Your task to perform on an android device: Go to sound settings Image 0: 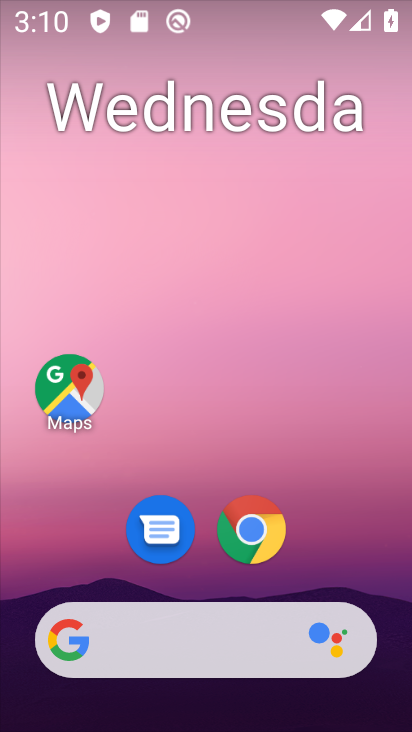
Step 0: drag from (90, 621) to (190, 127)
Your task to perform on an android device: Go to sound settings Image 1: 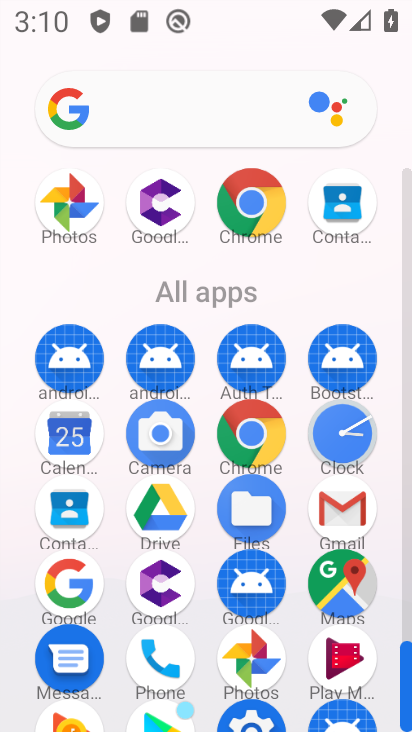
Step 1: drag from (132, 644) to (182, 371)
Your task to perform on an android device: Go to sound settings Image 2: 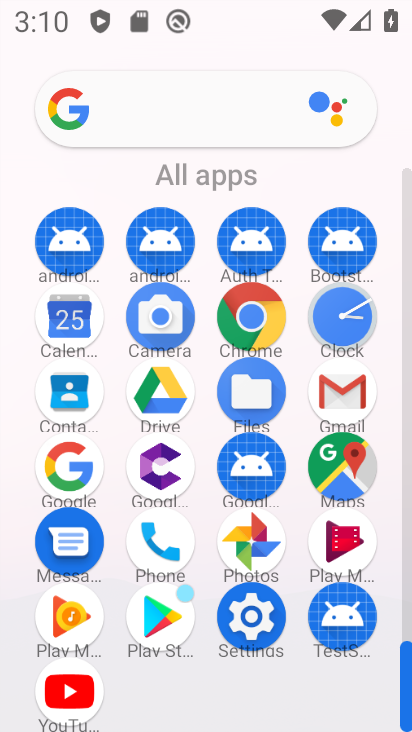
Step 2: click (245, 630)
Your task to perform on an android device: Go to sound settings Image 3: 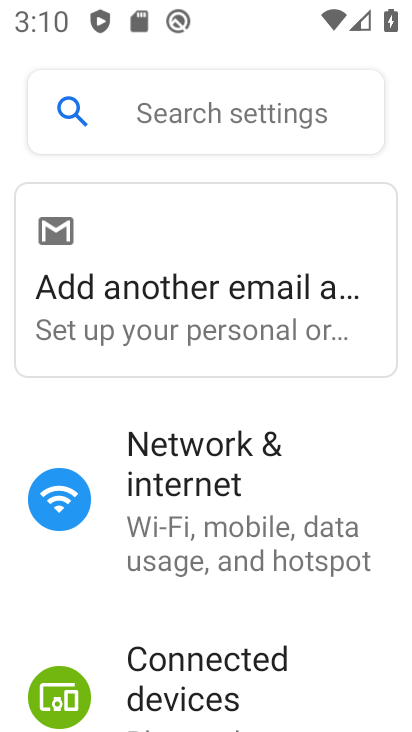
Step 3: drag from (166, 654) to (275, 168)
Your task to perform on an android device: Go to sound settings Image 4: 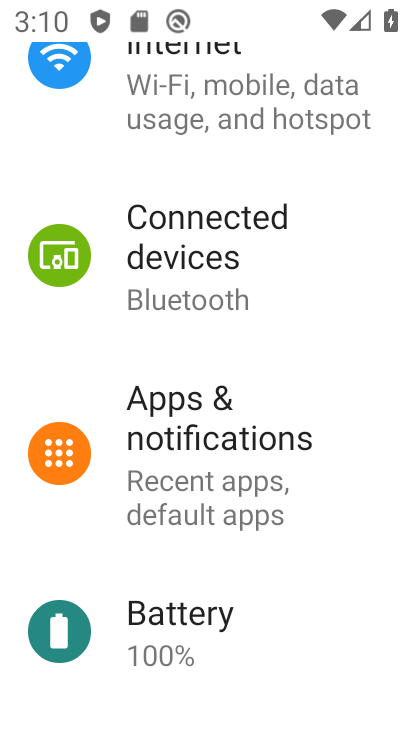
Step 4: drag from (189, 639) to (314, 209)
Your task to perform on an android device: Go to sound settings Image 5: 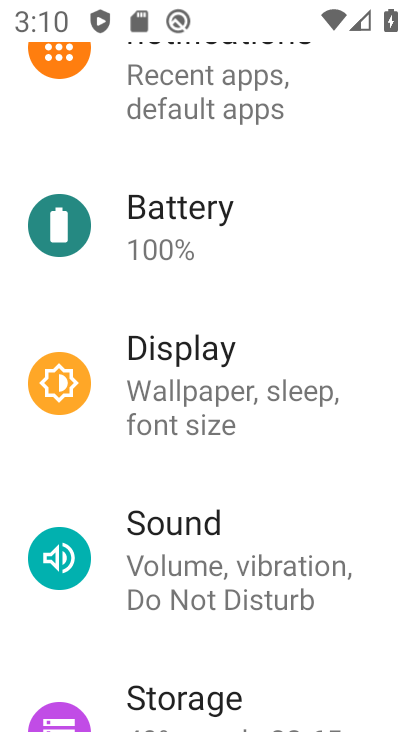
Step 5: drag from (181, 685) to (210, 483)
Your task to perform on an android device: Go to sound settings Image 6: 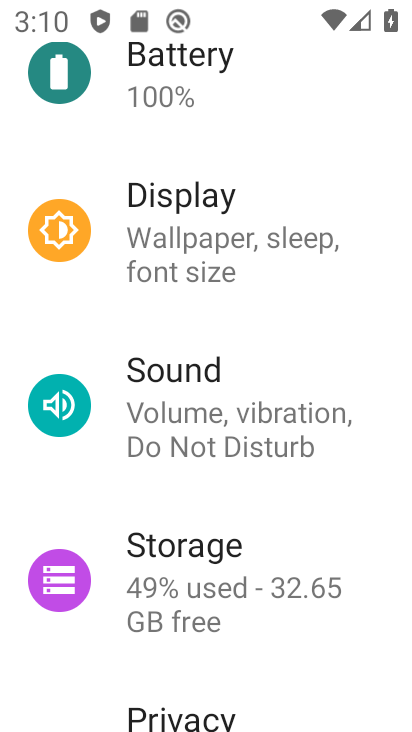
Step 6: click (193, 456)
Your task to perform on an android device: Go to sound settings Image 7: 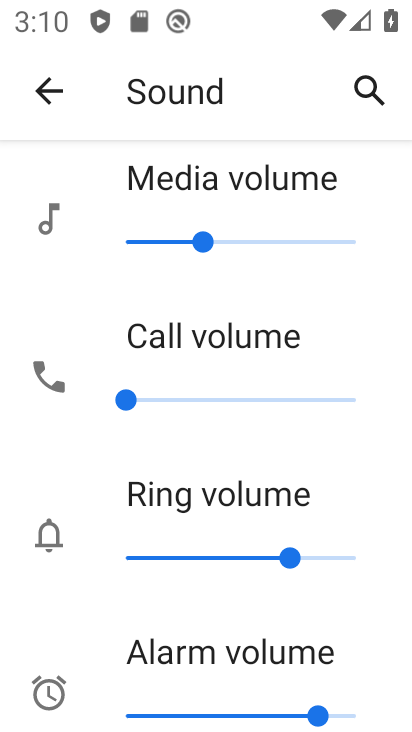
Step 7: task complete